Your task to perform on an android device: Open Google Chrome and open the bookmarks view Image 0: 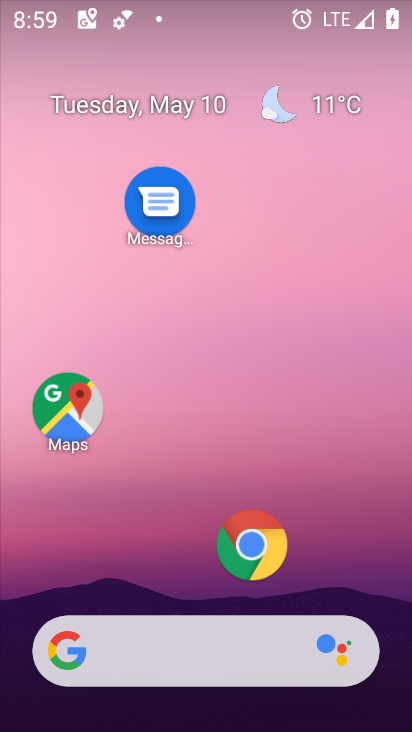
Step 0: click (246, 543)
Your task to perform on an android device: Open Google Chrome and open the bookmarks view Image 1: 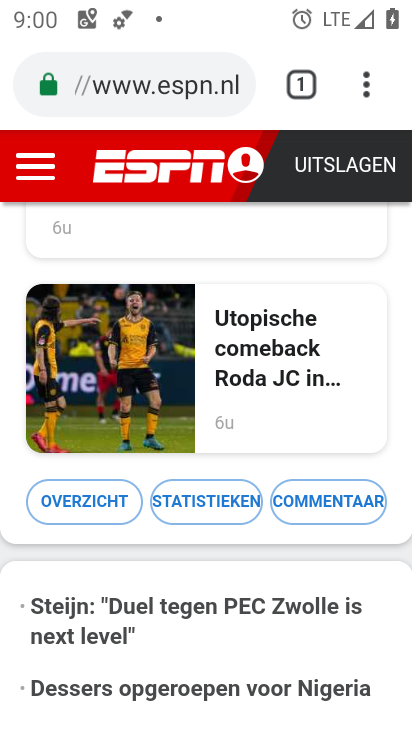
Step 1: click (369, 90)
Your task to perform on an android device: Open Google Chrome and open the bookmarks view Image 2: 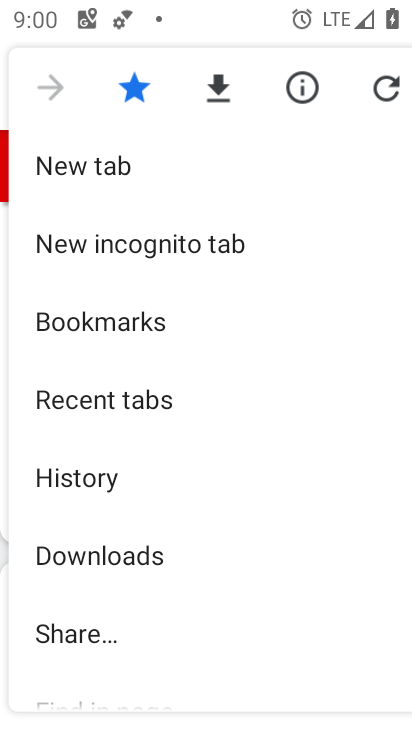
Step 2: click (170, 310)
Your task to perform on an android device: Open Google Chrome and open the bookmarks view Image 3: 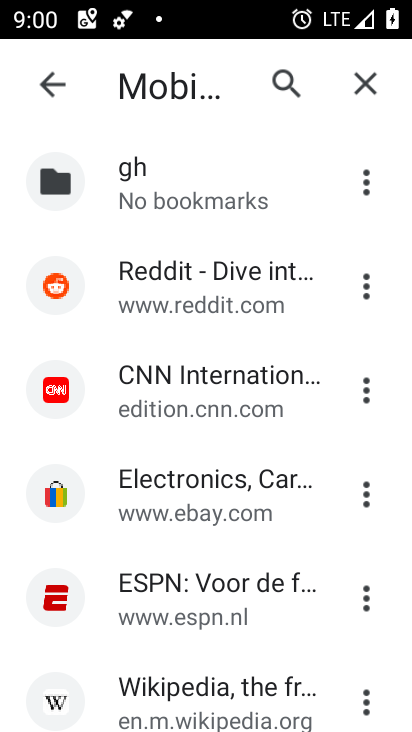
Step 3: task complete